Your task to perform on an android device: change the clock style Image 0: 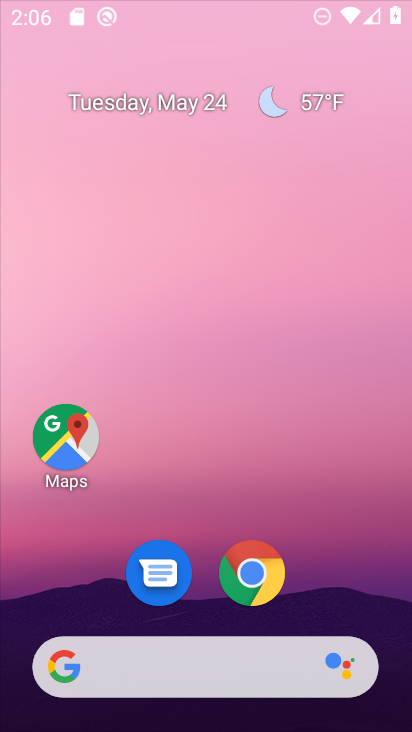
Step 0: drag from (353, 583) to (301, 164)
Your task to perform on an android device: change the clock style Image 1: 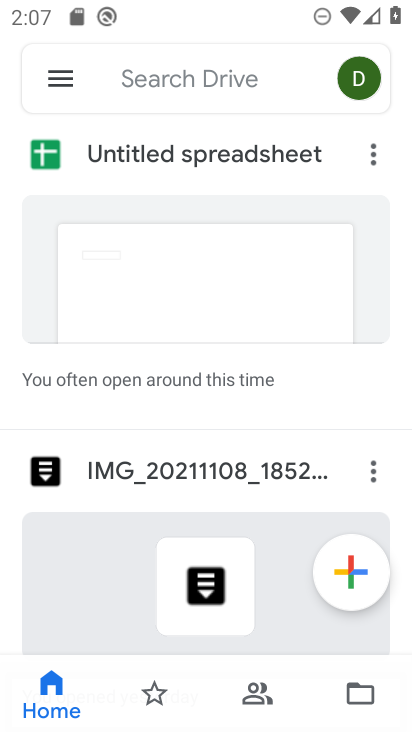
Step 1: press home button
Your task to perform on an android device: change the clock style Image 2: 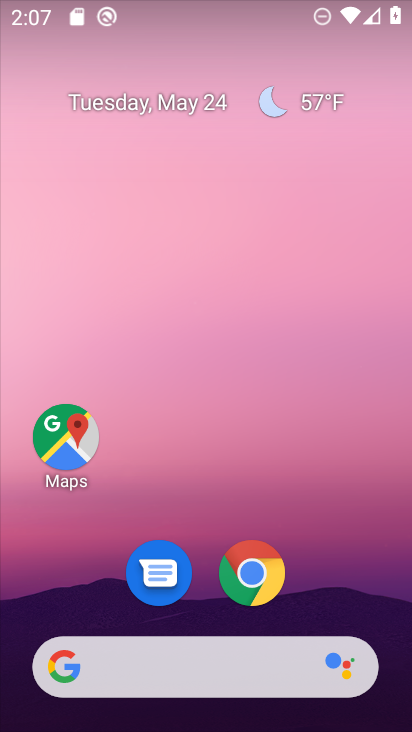
Step 2: drag from (306, 605) to (299, 96)
Your task to perform on an android device: change the clock style Image 3: 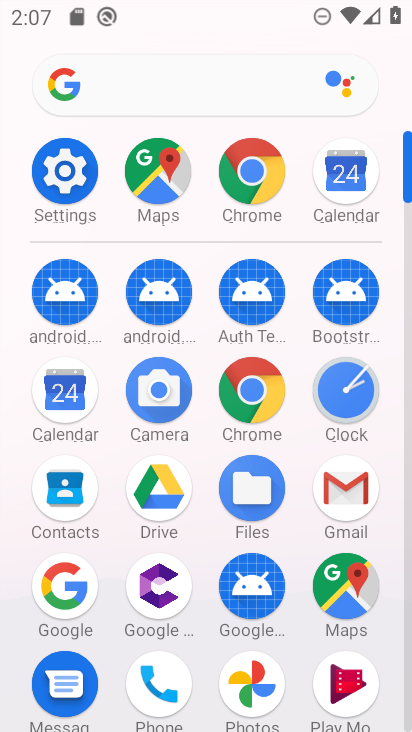
Step 3: click (348, 403)
Your task to perform on an android device: change the clock style Image 4: 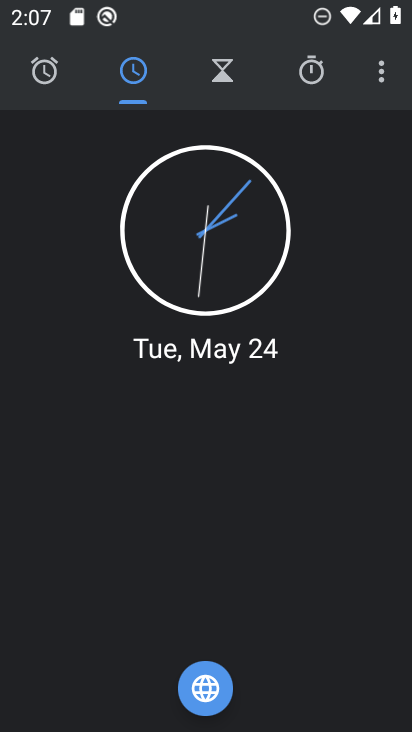
Step 4: click (375, 80)
Your task to perform on an android device: change the clock style Image 5: 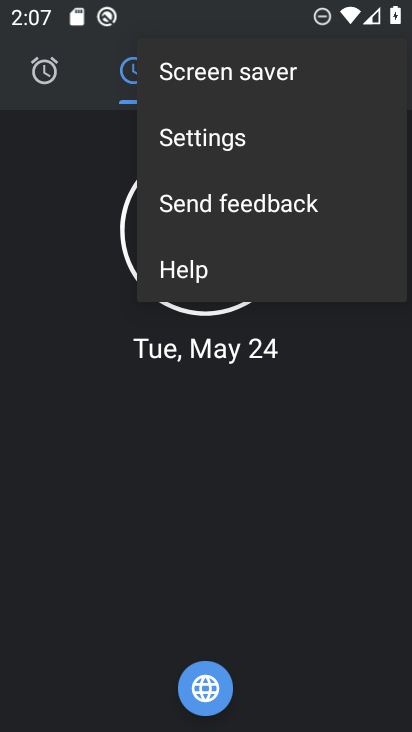
Step 5: click (165, 133)
Your task to perform on an android device: change the clock style Image 6: 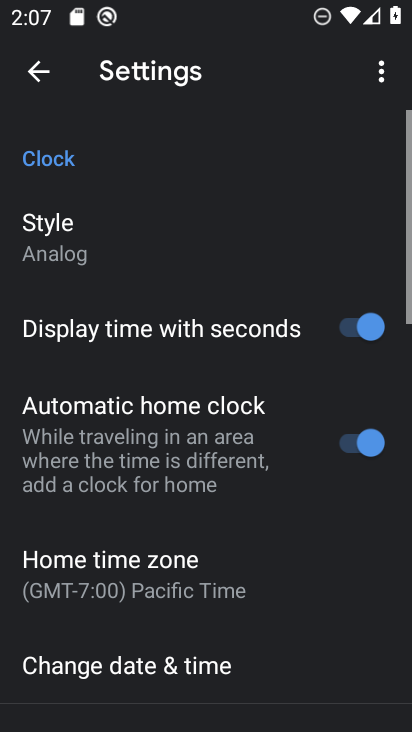
Step 6: click (77, 231)
Your task to perform on an android device: change the clock style Image 7: 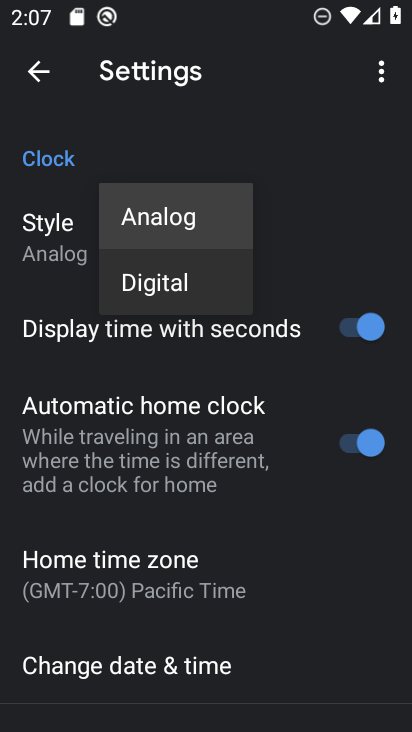
Step 7: click (135, 287)
Your task to perform on an android device: change the clock style Image 8: 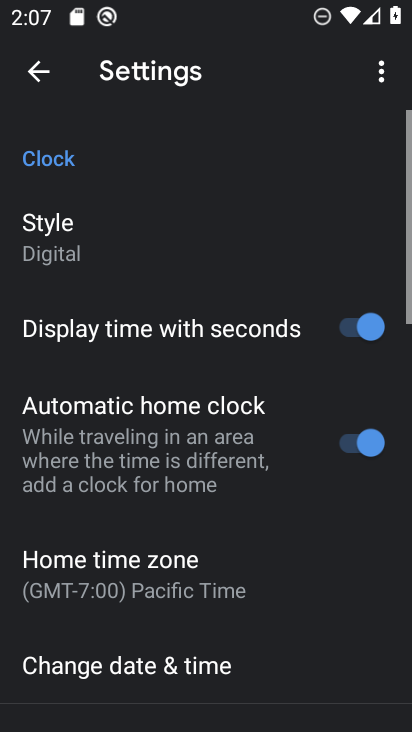
Step 8: task complete